Your task to perform on an android device: Show me recent news Image 0: 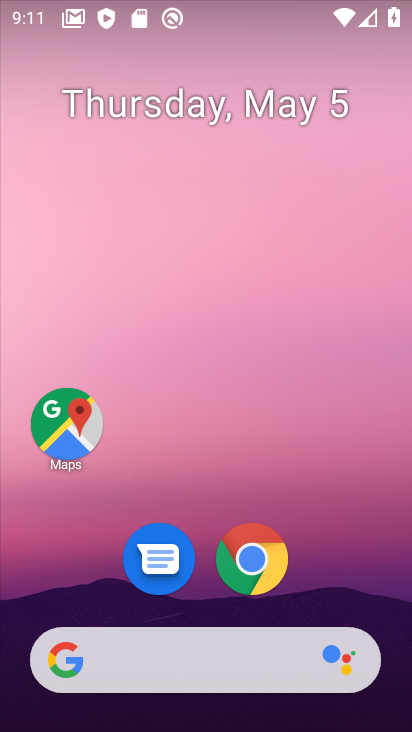
Step 0: click (249, 553)
Your task to perform on an android device: Show me recent news Image 1: 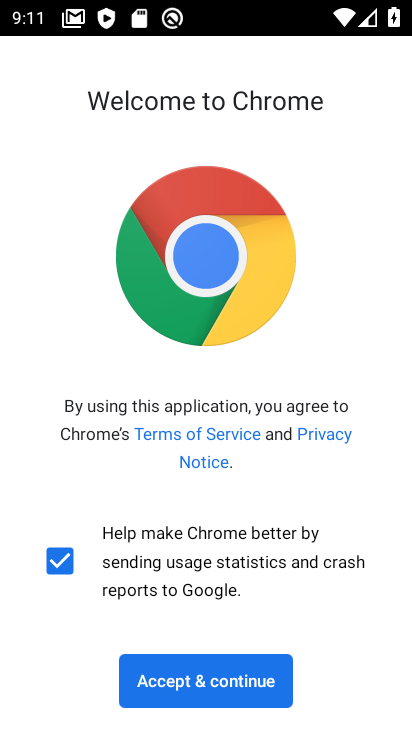
Step 1: click (204, 683)
Your task to perform on an android device: Show me recent news Image 2: 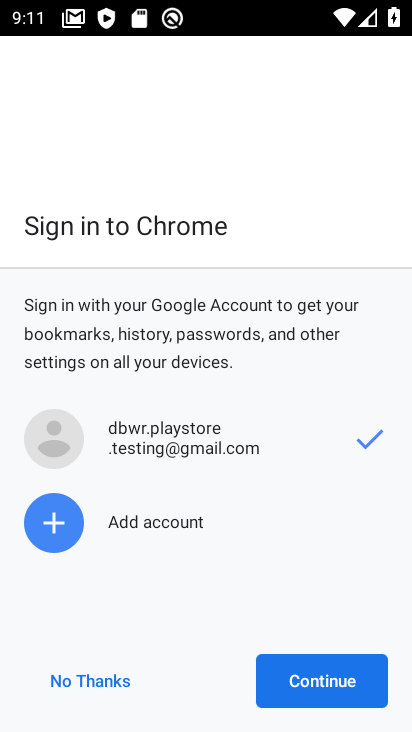
Step 2: click (328, 671)
Your task to perform on an android device: Show me recent news Image 3: 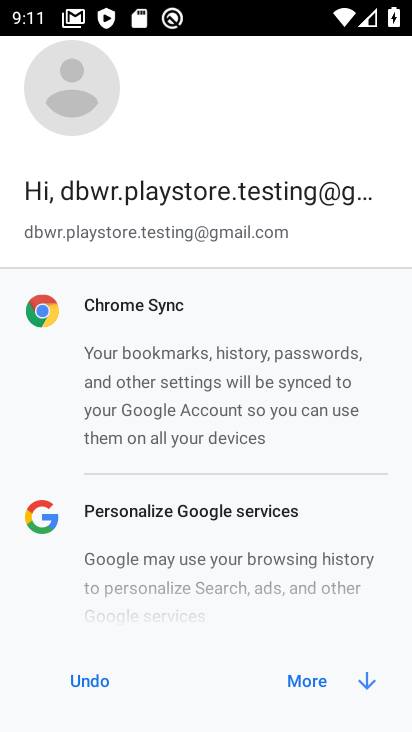
Step 3: click (348, 676)
Your task to perform on an android device: Show me recent news Image 4: 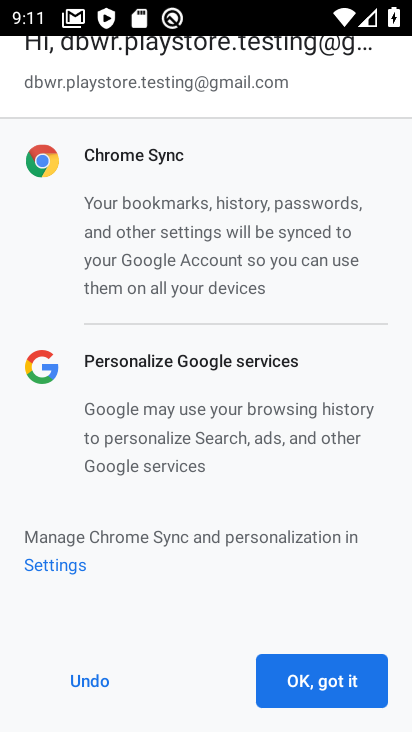
Step 4: click (348, 676)
Your task to perform on an android device: Show me recent news Image 5: 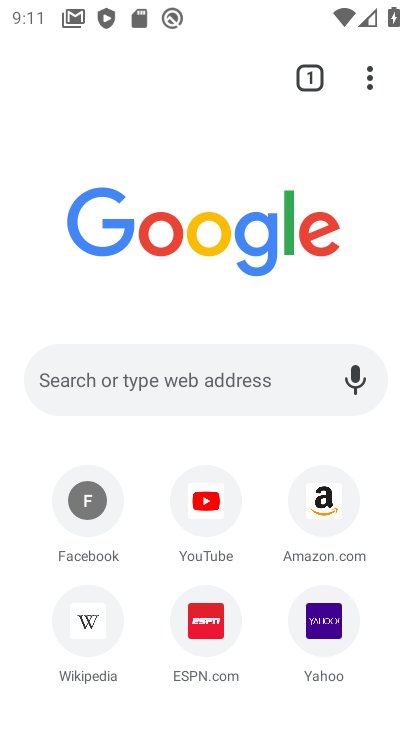
Step 5: click (166, 385)
Your task to perform on an android device: Show me recent news Image 6: 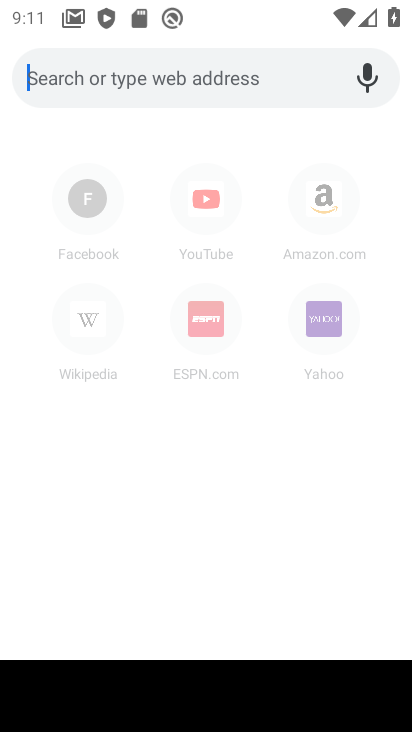
Step 6: type "Show me recent news"
Your task to perform on an android device: Show me recent news Image 7: 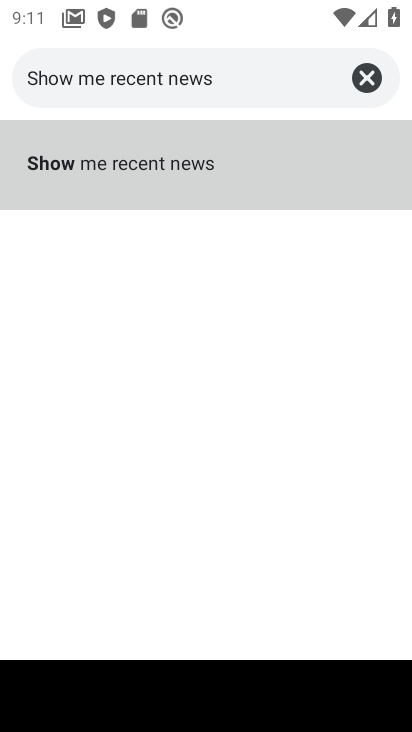
Step 7: click (178, 146)
Your task to perform on an android device: Show me recent news Image 8: 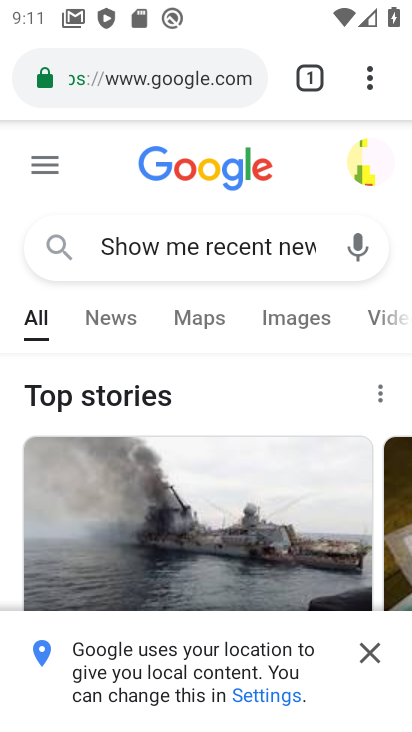
Step 8: click (373, 657)
Your task to perform on an android device: Show me recent news Image 9: 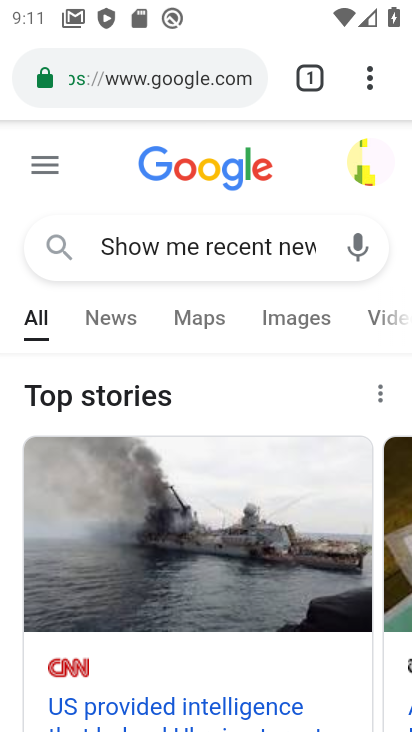
Step 9: task complete